Your task to perform on an android device: Show me recent news Image 0: 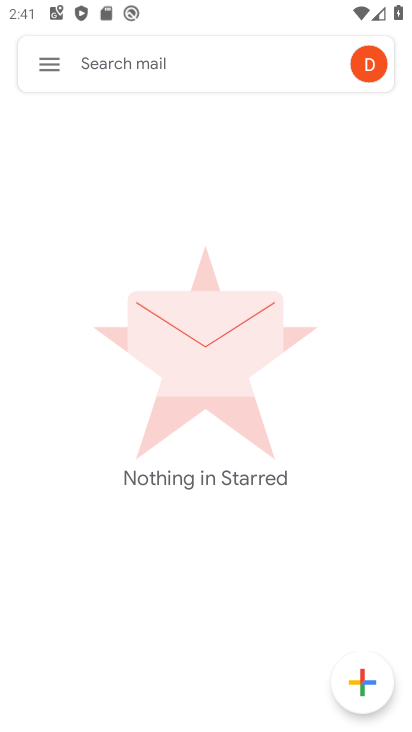
Step 0: press home button
Your task to perform on an android device: Show me recent news Image 1: 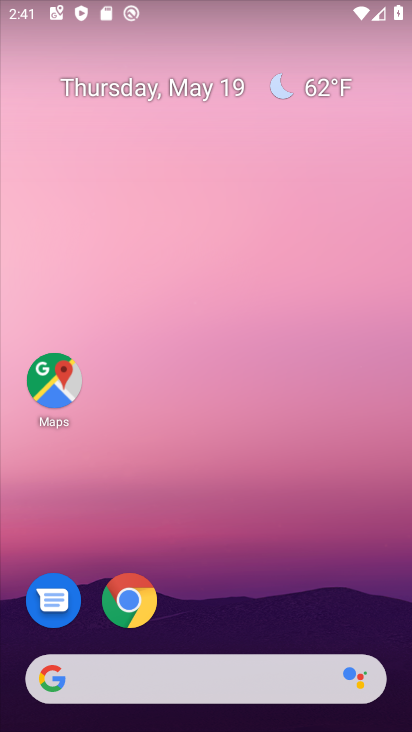
Step 1: click (95, 689)
Your task to perform on an android device: Show me recent news Image 2: 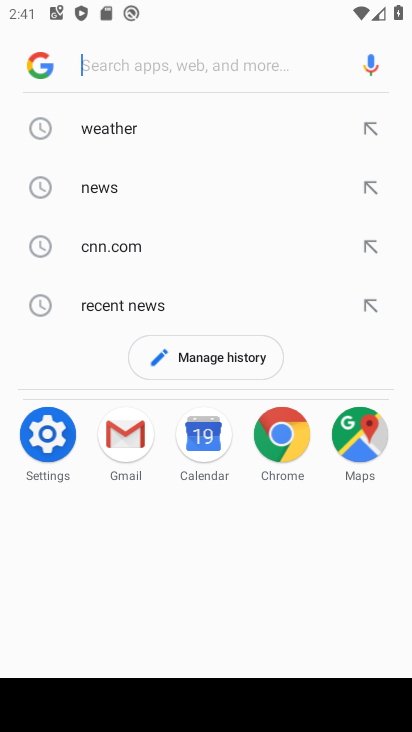
Step 2: click (95, 174)
Your task to perform on an android device: Show me recent news Image 3: 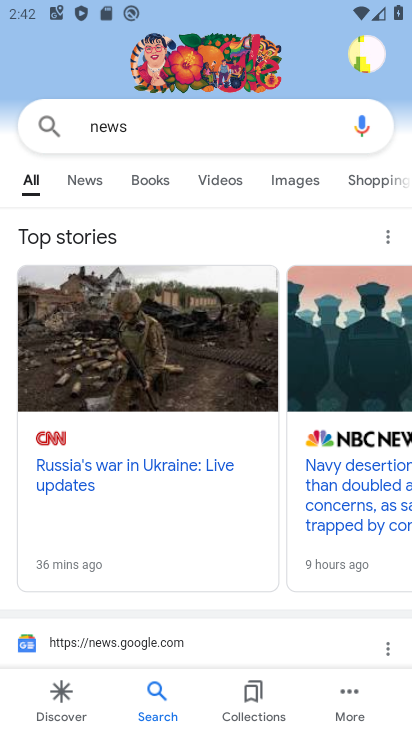
Step 3: task complete